Your task to perform on an android device: turn off notifications settings in the gmail app Image 0: 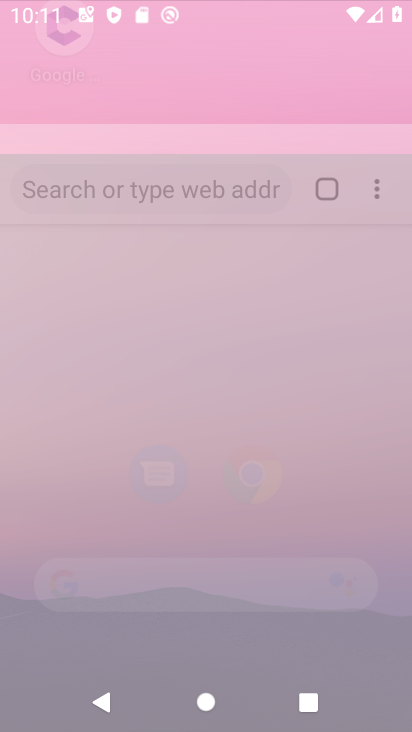
Step 0: drag from (347, 505) to (337, 50)
Your task to perform on an android device: turn off notifications settings in the gmail app Image 1: 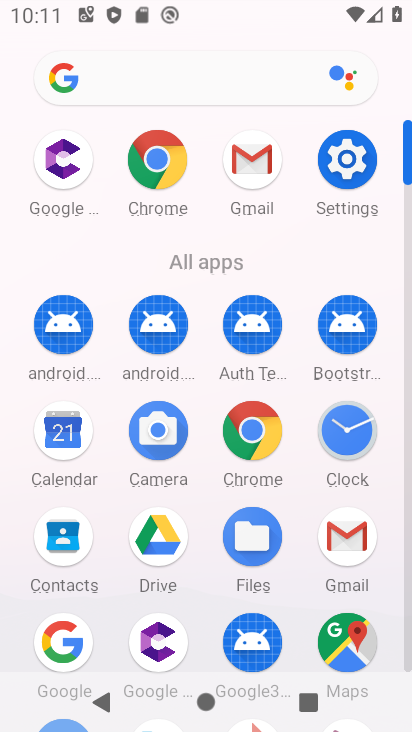
Step 1: click (262, 186)
Your task to perform on an android device: turn off notifications settings in the gmail app Image 2: 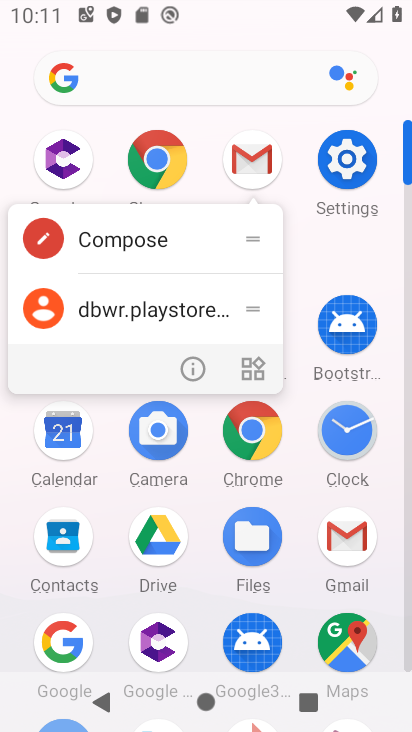
Step 2: click (264, 163)
Your task to perform on an android device: turn off notifications settings in the gmail app Image 3: 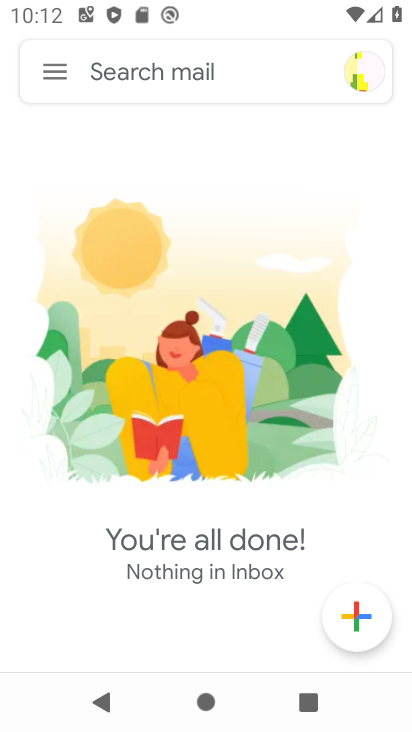
Step 3: click (56, 84)
Your task to perform on an android device: turn off notifications settings in the gmail app Image 4: 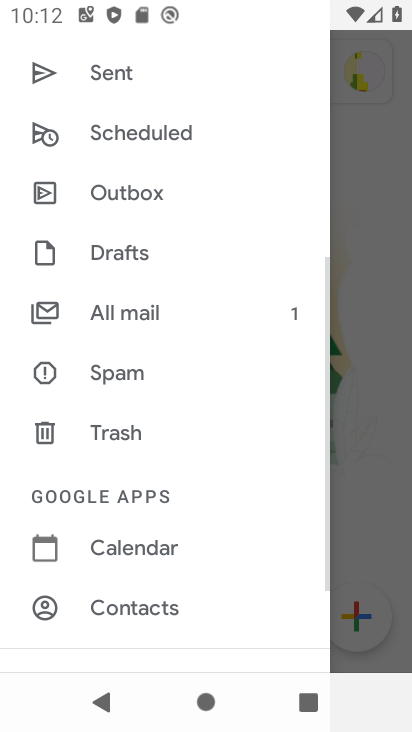
Step 4: drag from (97, 576) to (121, 165)
Your task to perform on an android device: turn off notifications settings in the gmail app Image 5: 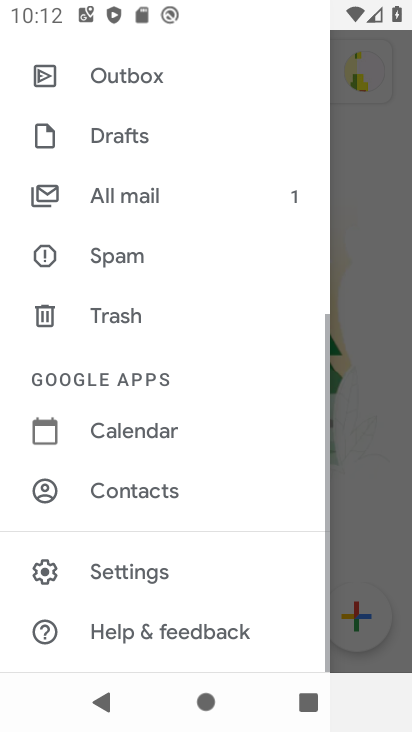
Step 5: click (119, 568)
Your task to perform on an android device: turn off notifications settings in the gmail app Image 6: 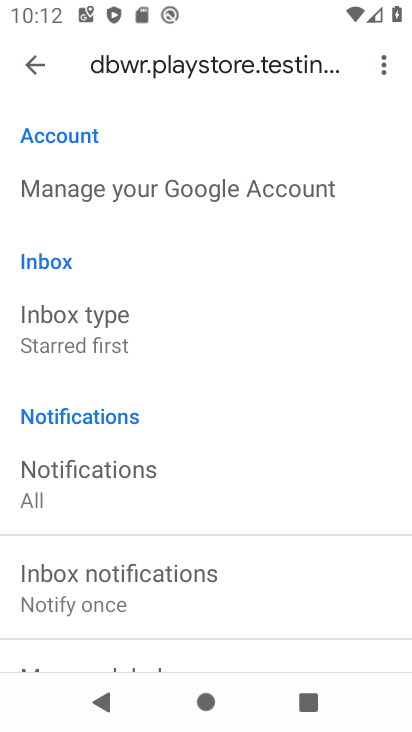
Step 6: click (90, 479)
Your task to perform on an android device: turn off notifications settings in the gmail app Image 7: 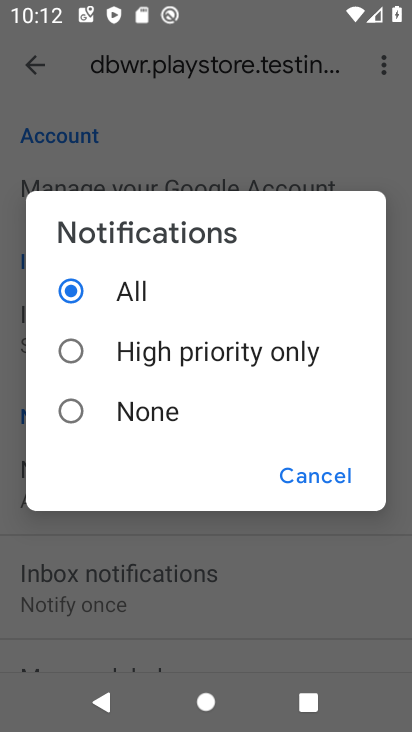
Step 7: click (65, 354)
Your task to perform on an android device: turn off notifications settings in the gmail app Image 8: 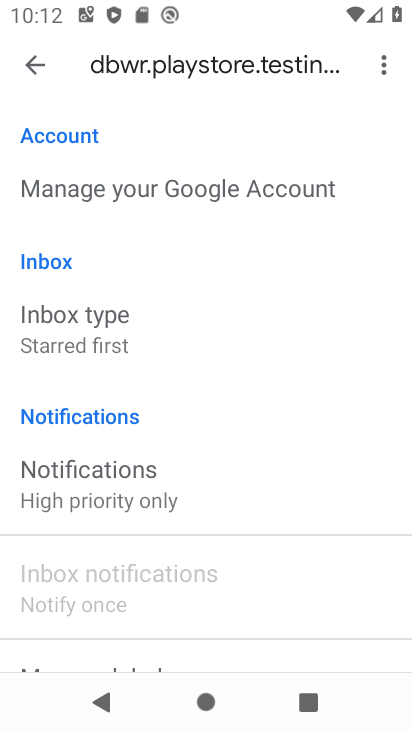
Step 8: task complete